Your task to perform on an android device: turn on airplane mode Image 0: 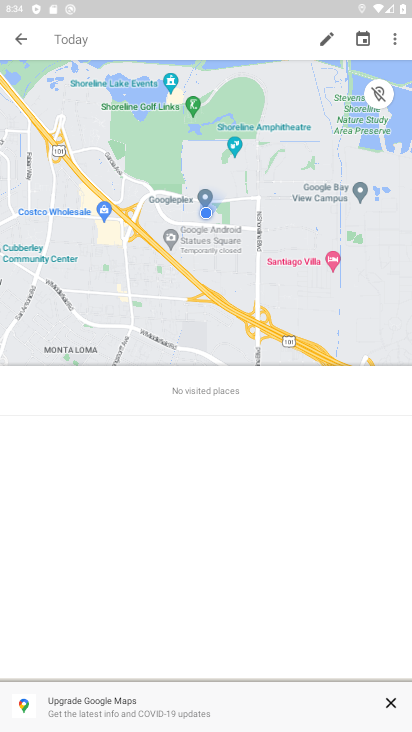
Step 0: press home button
Your task to perform on an android device: turn on airplane mode Image 1: 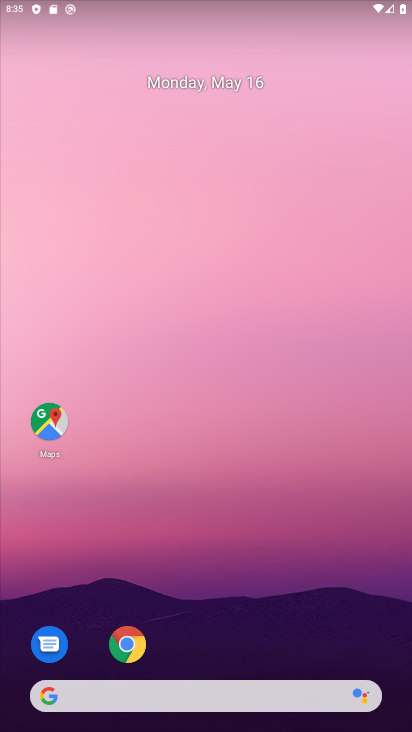
Step 1: drag from (190, 728) to (310, 10)
Your task to perform on an android device: turn on airplane mode Image 2: 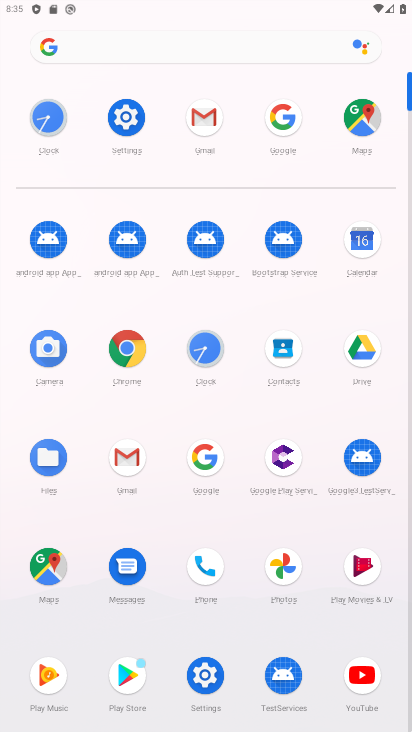
Step 2: click (126, 115)
Your task to perform on an android device: turn on airplane mode Image 3: 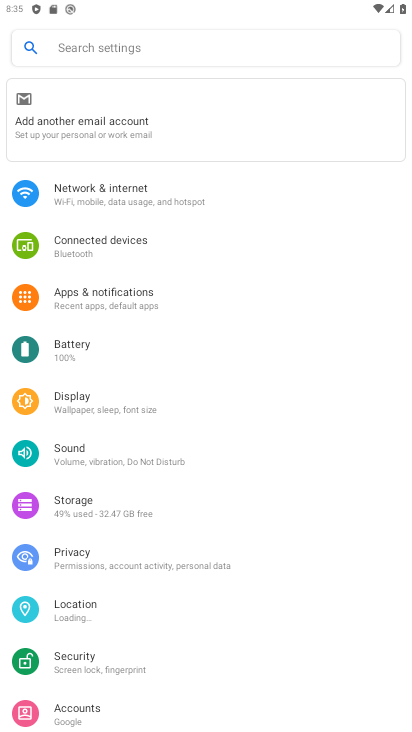
Step 3: click (181, 194)
Your task to perform on an android device: turn on airplane mode Image 4: 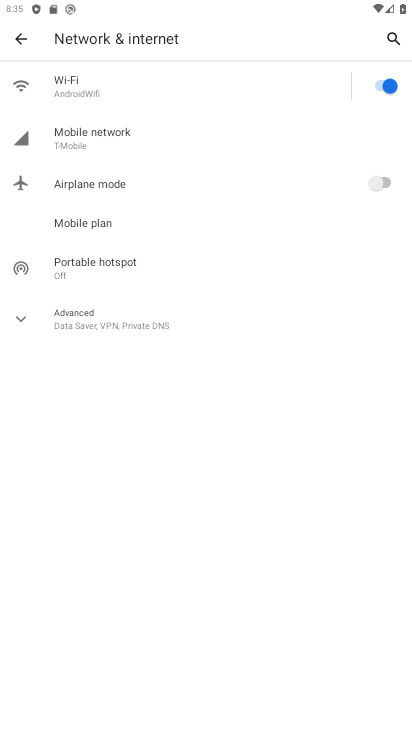
Step 4: click (375, 184)
Your task to perform on an android device: turn on airplane mode Image 5: 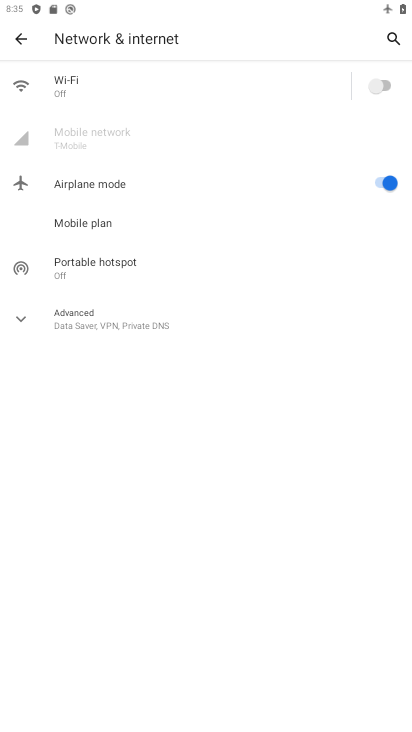
Step 5: task complete